Your task to perform on an android device: turn on showing notifications on the lock screen Image 0: 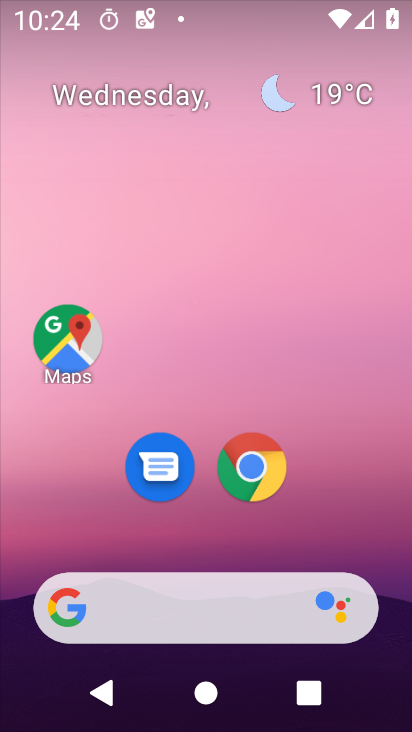
Step 0: drag from (322, 417) to (195, 7)
Your task to perform on an android device: turn on showing notifications on the lock screen Image 1: 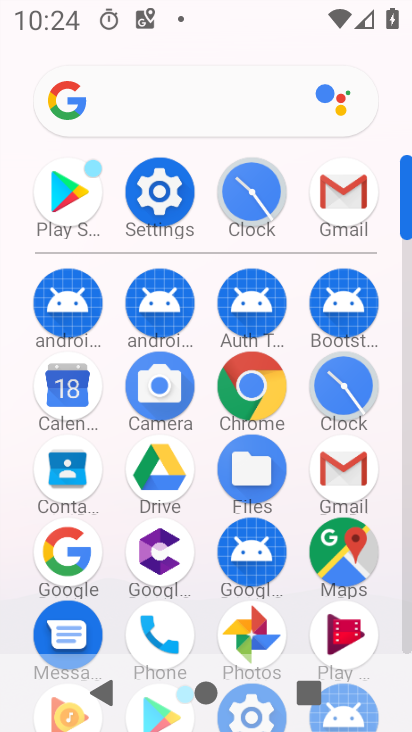
Step 1: click (158, 170)
Your task to perform on an android device: turn on showing notifications on the lock screen Image 2: 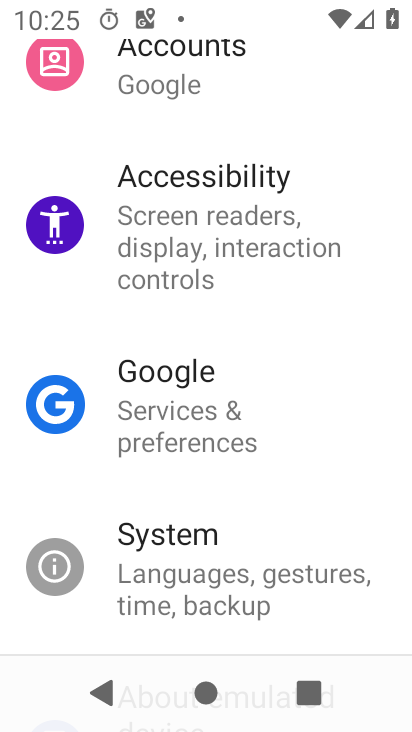
Step 2: drag from (273, 504) to (218, 114)
Your task to perform on an android device: turn on showing notifications on the lock screen Image 3: 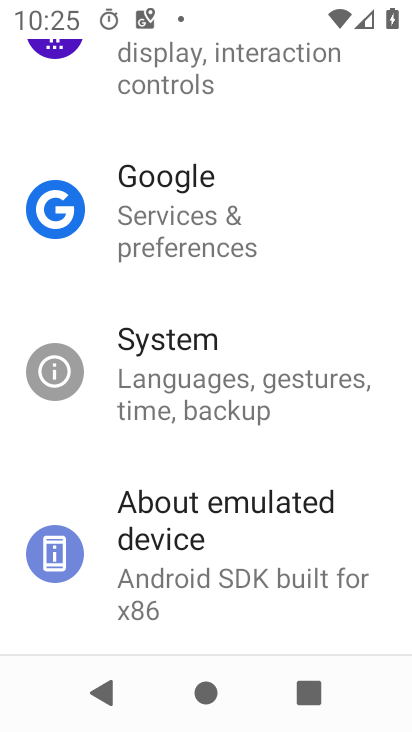
Step 3: drag from (297, 136) to (234, 724)
Your task to perform on an android device: turn on showing notifications on the lock screen Image 4: 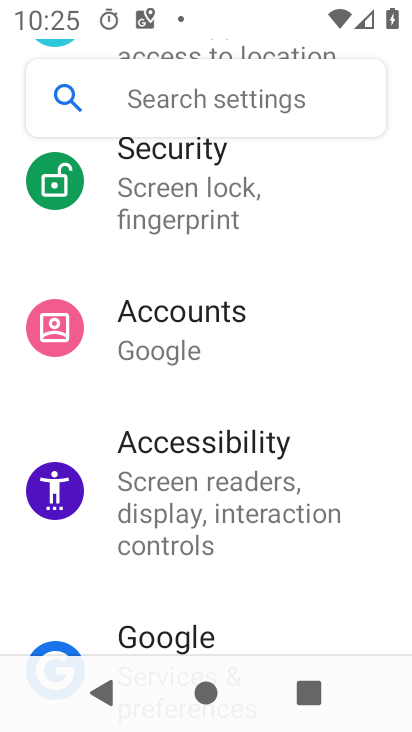
Step 4: drag from (256, 222) to (225, 725)
Your task to perform on an android device: turn on showing notifications on the lock screen Image 5: 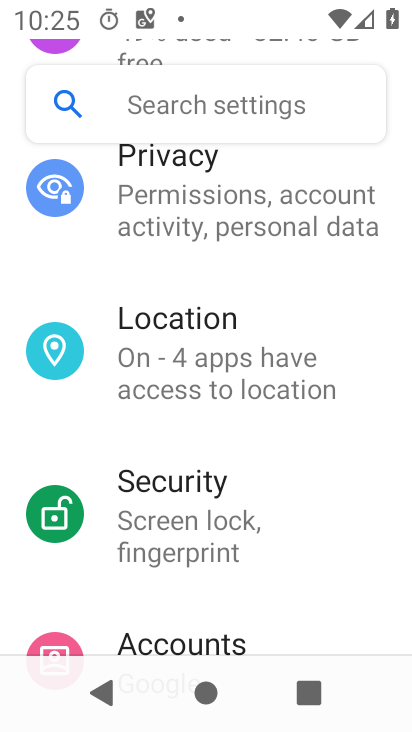
Step 5: drag from (261, 255) to (229, 712)
Your task to perform on an android device: turn on showing notifications on the lock screen Image 6: 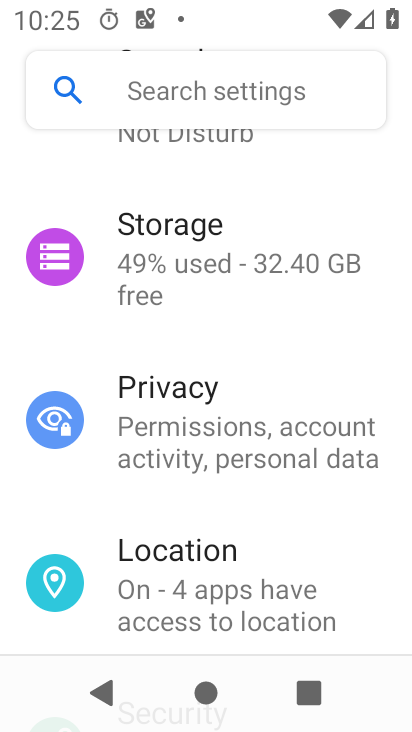
Step 6: drag from (254, 287) to (232, 693)
Your task to perform on an android device: turn on showing notifications on the lock screen Image 7: 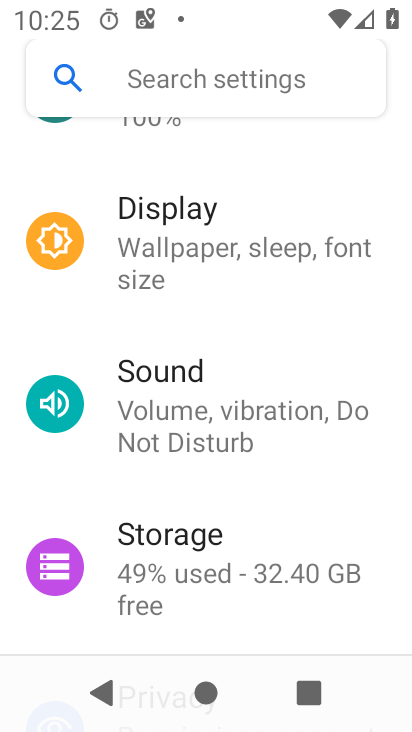
Step 7: drag from (260, 240) to (265, 623)
Your task to perform on an android device: turn on showing notifications on the lock screen Image 8: 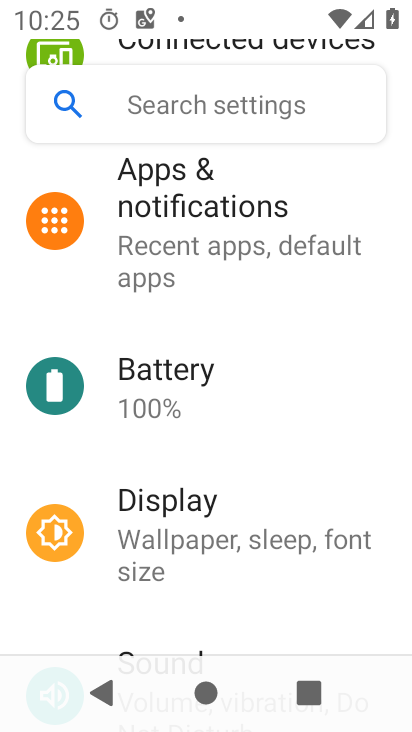
Step 8: click (226, 219)
Your task to perform on an android device: turn on showing notifications on the lock screen Image 9: 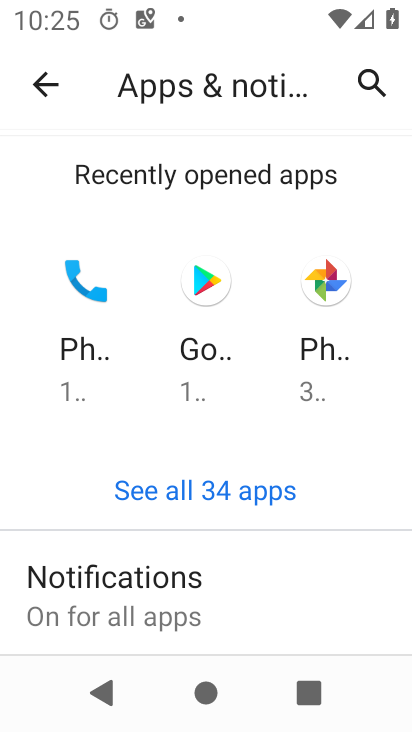
Step 9: click (243, 603)
Your task to perform on an android device: turn on showing notifications on the lock screen Image 10: 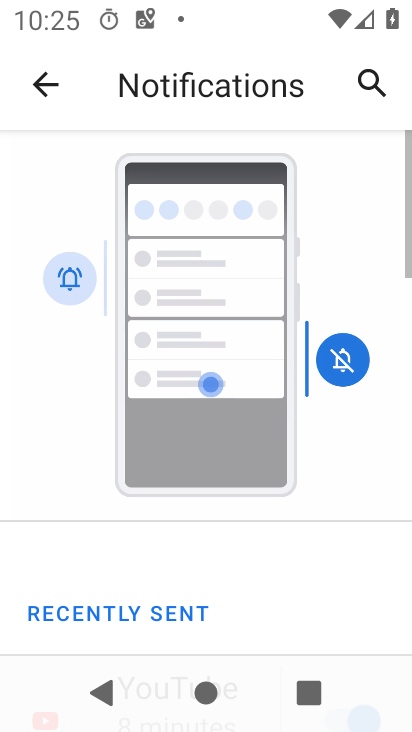
Step 10: drag from (178, 579) to (201, 104)
Your task to perform on an android device: turn on showing notifications on the lock screen Image 11: 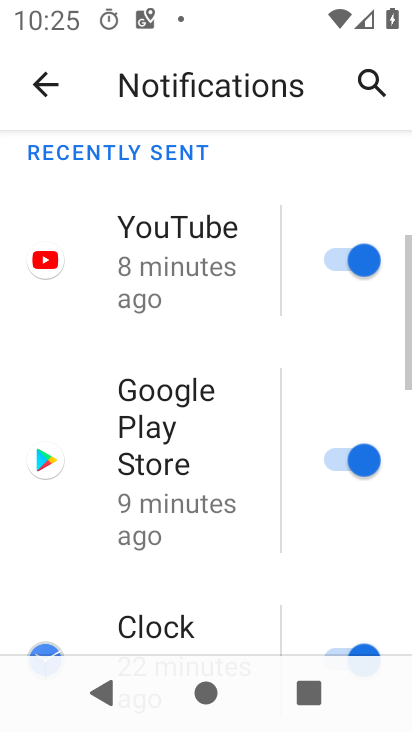
Step 11: drag from (174, 476) to (182, 49)
Your task to perform on an android device: turn on showing notifications on the lock screen Image 12: 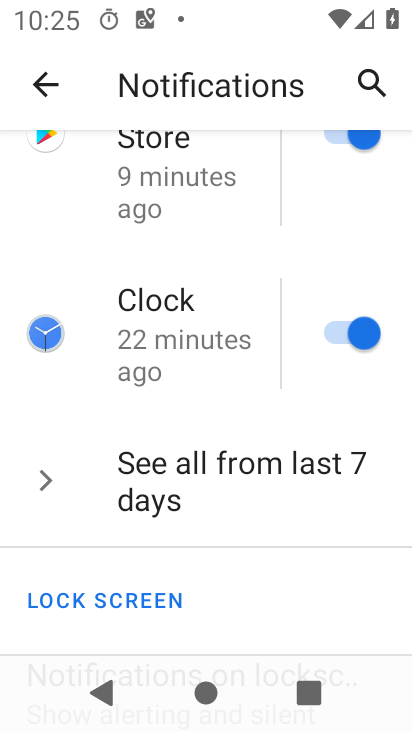
Step 12: drag from (152, 490) to (173, 222)
Your task to perform on an android device: turn on showing notifications on the lock screen Image 13: 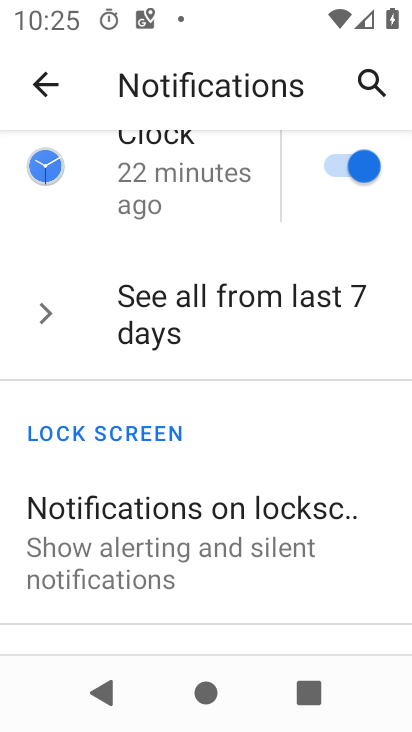
Step 13: click (168, 534)
Your task to perform on an android device: turn on showing notifications on the lock screen Image 14: 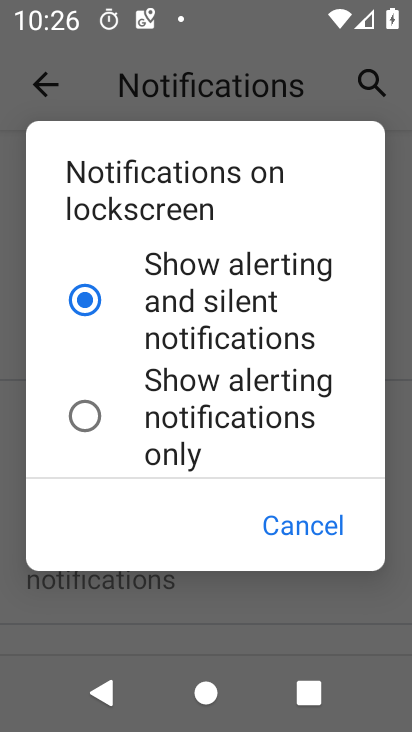
Step 14: task complete